Your task to perform on an android device: Open my contact list Image 0: 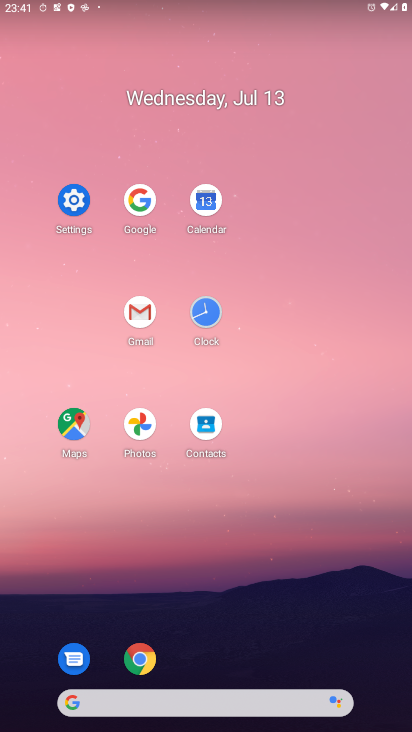
Step 0: drag from (269, 630) to (322, 207)
Your task to perform on an android device: Open my contact list Image 1: 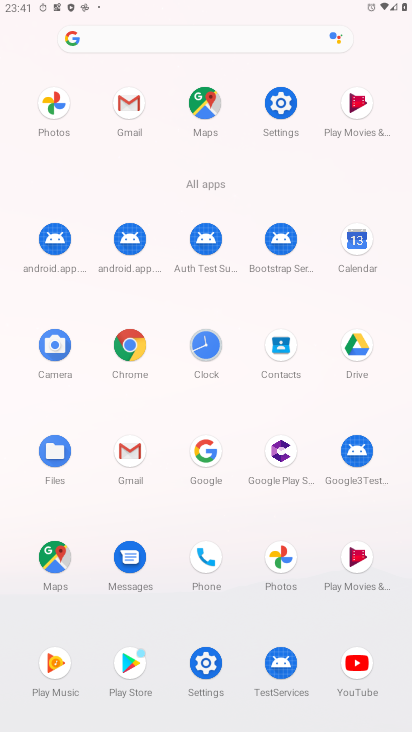
Step 1: click (285, 338)
Your task to perform on an android device: Open my contact list Image 2: 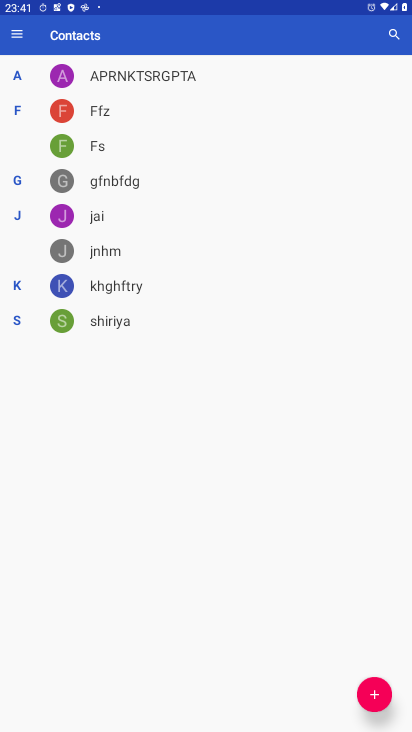
Step 2: task complete